Your task to perform on an android device: make emails show in primary in the gmail app Image 0: 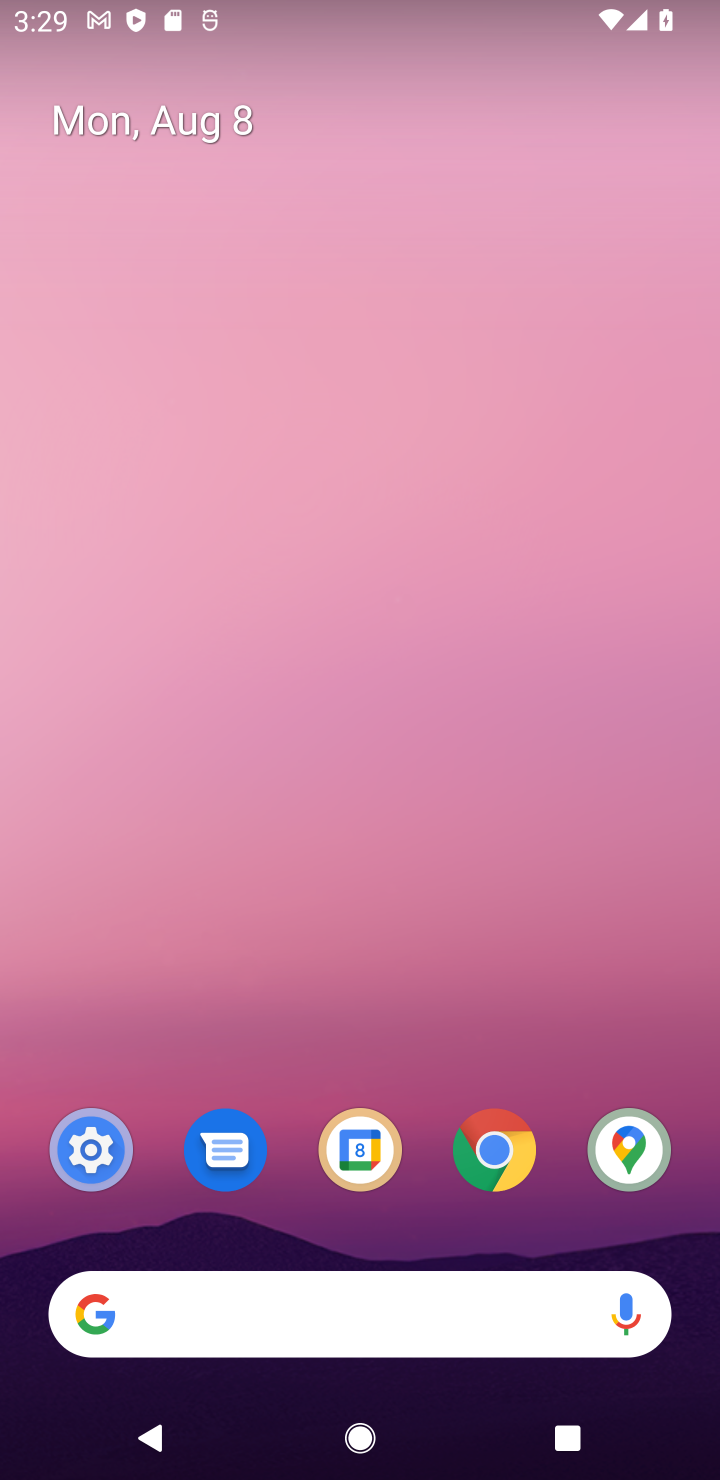
Step 0: drag from (488, 1231) to (470, 164)
Your task to perform on an android device: make emails show in primary in the gmail app Image 1: 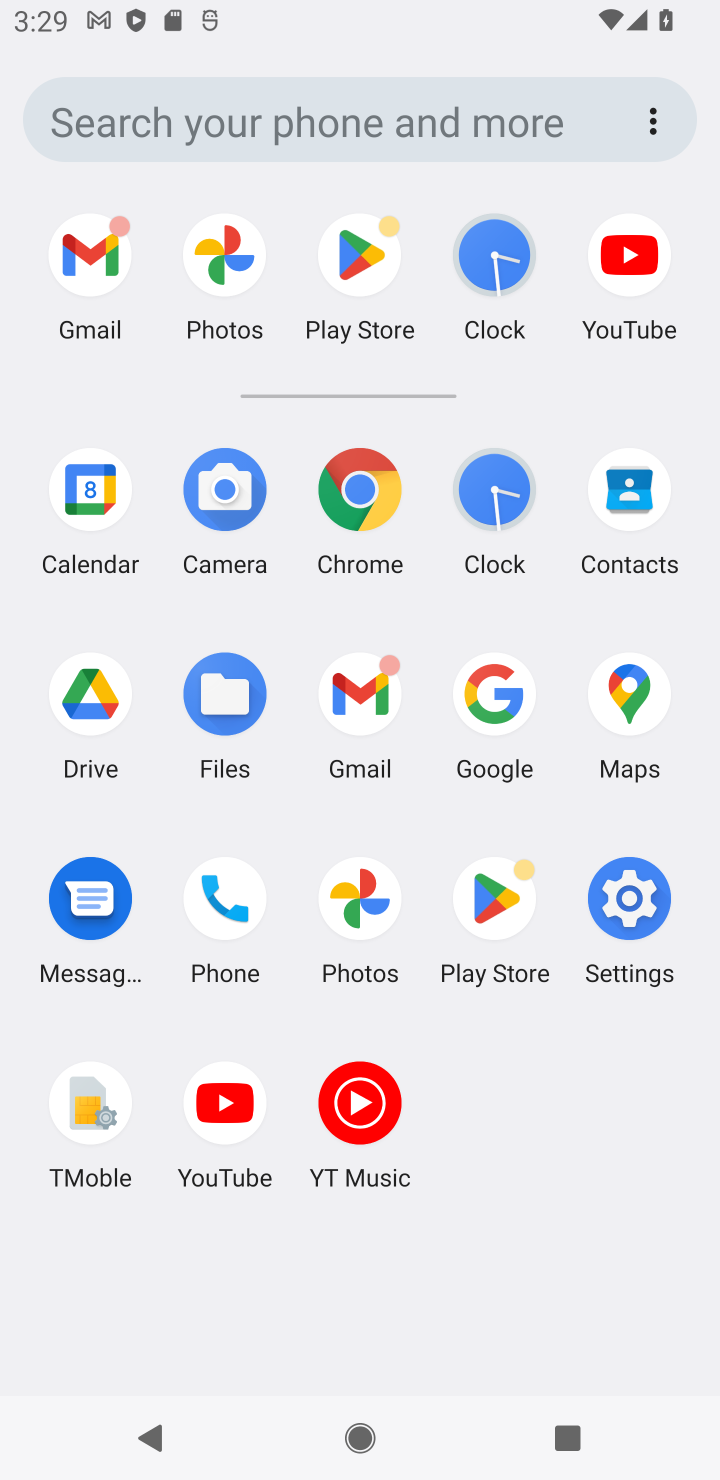
Step 1: click (117, 274)
Your task to perform on an android device: make emails show in primary in the gmail app Image 2: 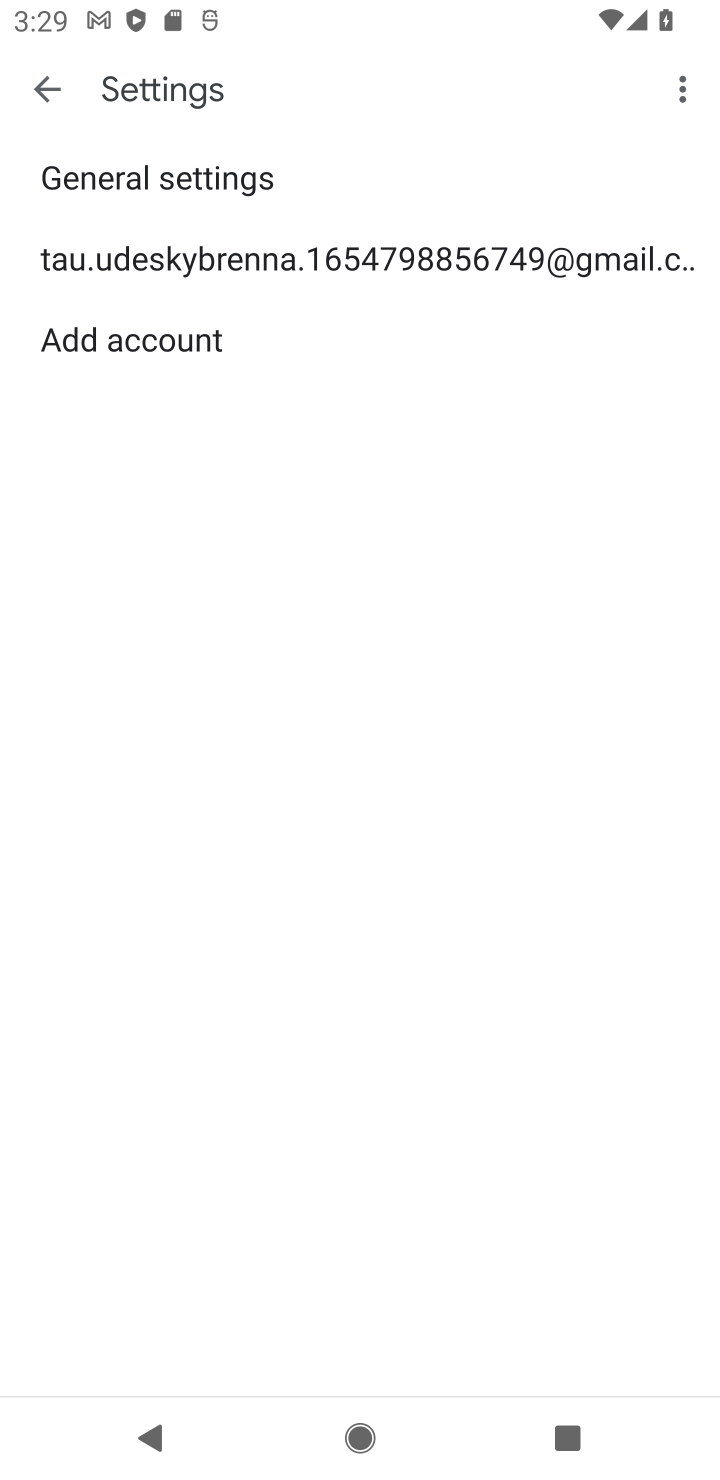
Step 2: task complete